Your task to perform on an android device: Open battery settings Image 0: 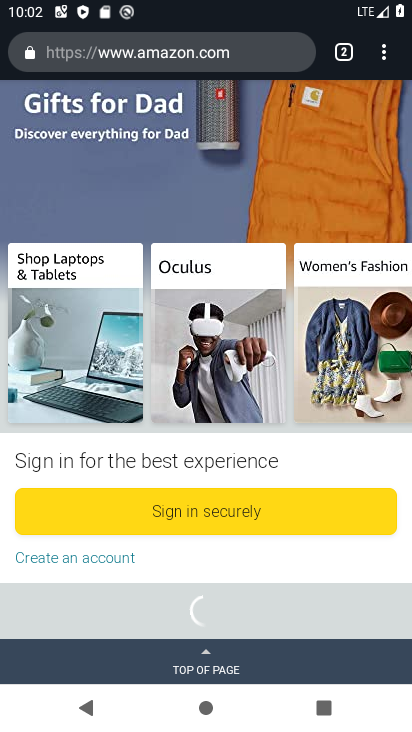
Step 0: press home button
Your task to perform on an android device: Open battery settings Image 1: 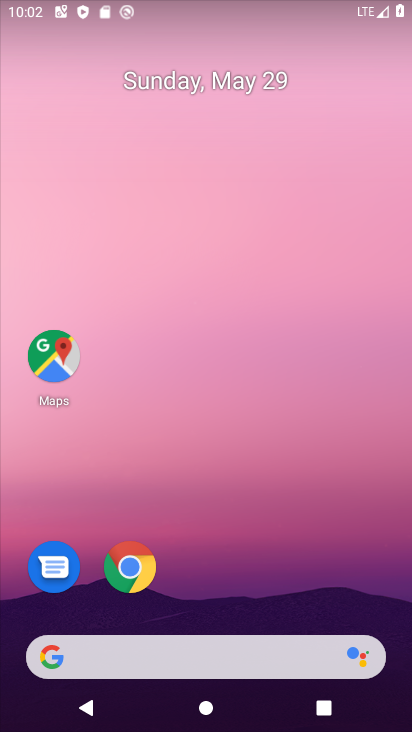
Step 1: drag from (390, 623) to (289, 86)
Your task to perform on an android device: Open battery settings Image 2: 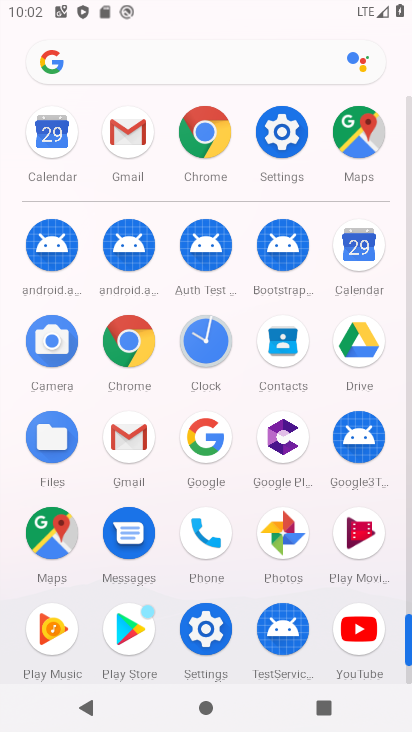
Step 2: click (203, 629)
Your task to perform on an android device: Open battery settings Image 3: 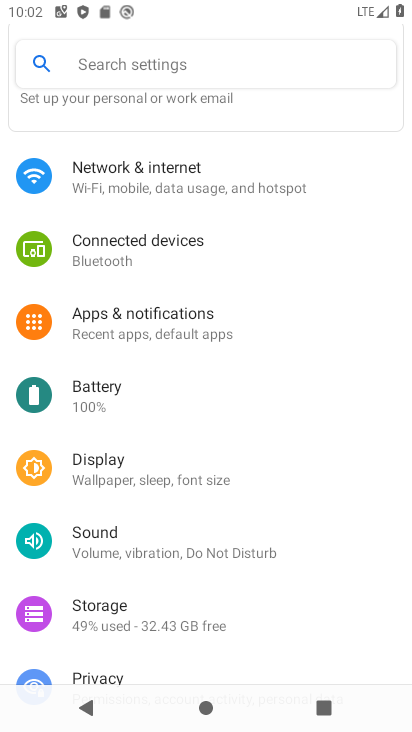
Step 3: click (96, 389)
Your task to perform on an android device: Open battery settings Image 4: 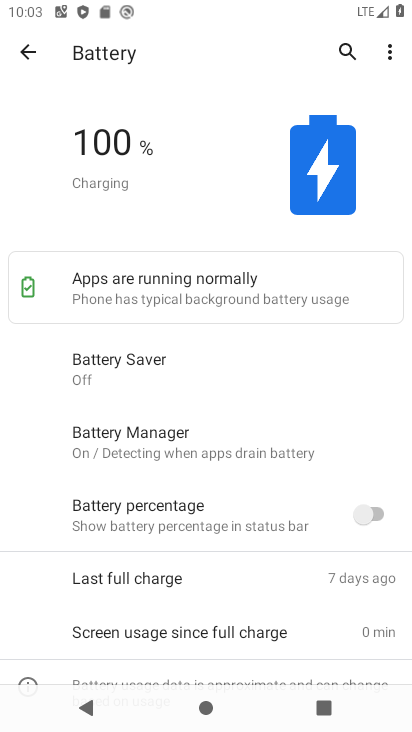
Step 4: task complete